Your task to perform on an android device: change the clock display to show seconds Image 0: 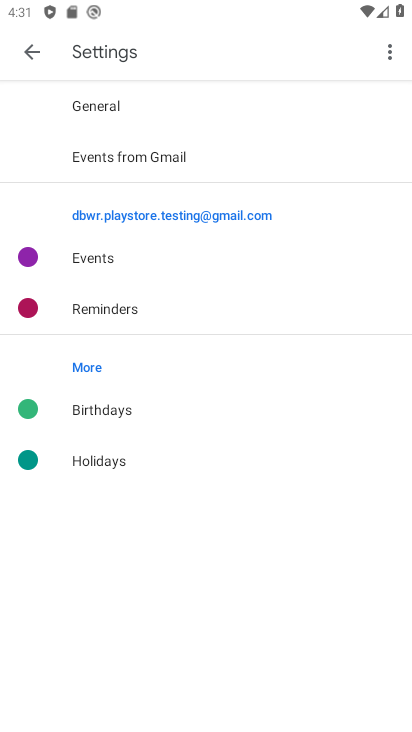
Step 0: press home button
Your task to perform on an android device: change the clock display to show seconds Image 1: 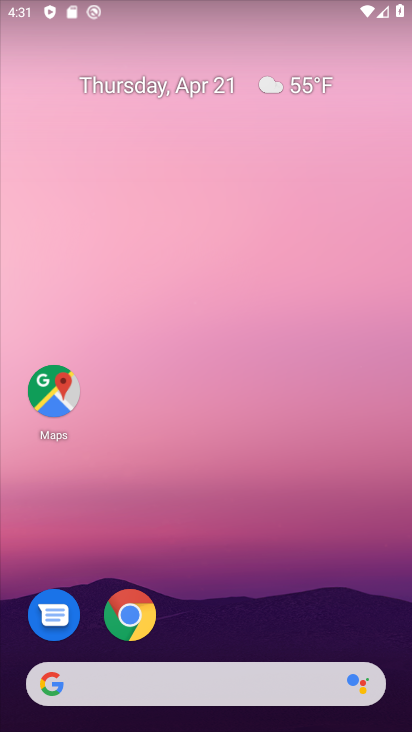
Step 1: drag from (211, 631) to (220, 208)
Your task to perform on an android device: change the clock display to show seconds Image 2: 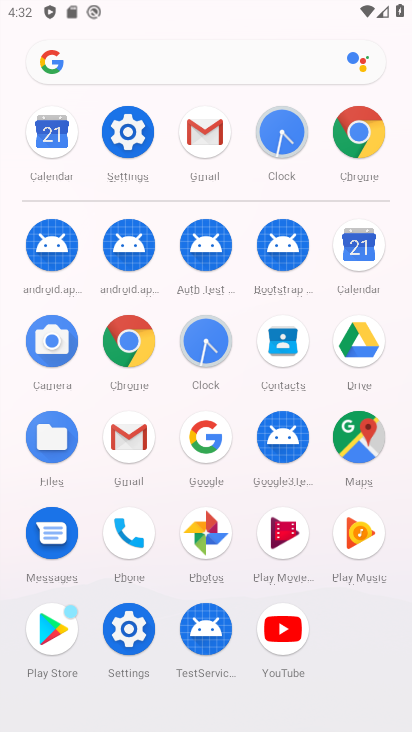
Step 2: click (277, 139)
Your task to perform on an android device: change the clock display to show seconds Image 3: 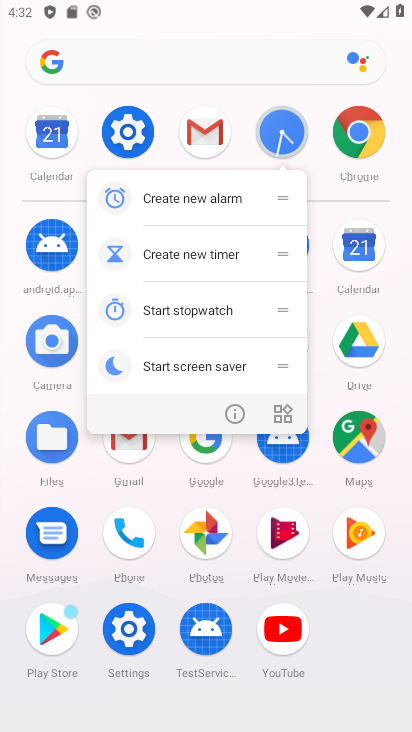
Step 3: click (277, 139)
Your task to perform on an android device: change the clock display to show seconds Image 4: 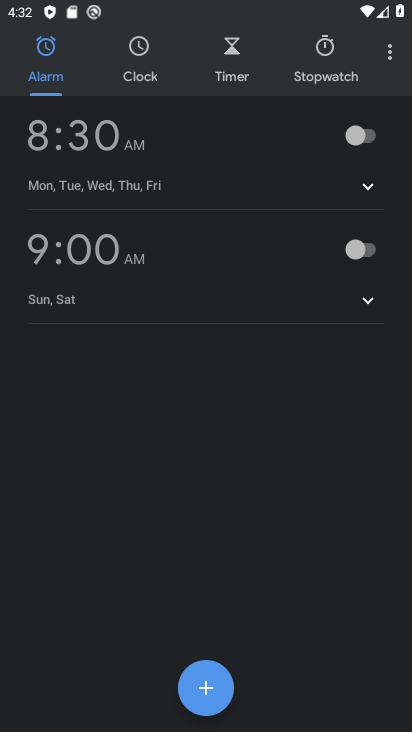
Step 4: click (390, 51)
Your task to perform on an android device: change the clock display to show seconds Image 5: 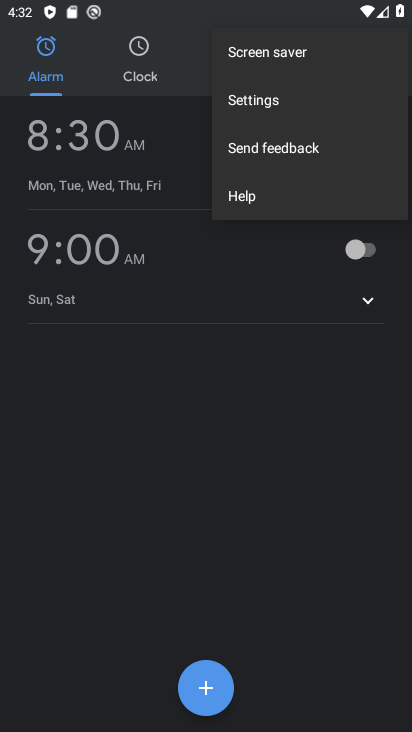
Step 5: click (283, 99)
Your task to perform on an android device: change the clock display to show seconds Image 6: 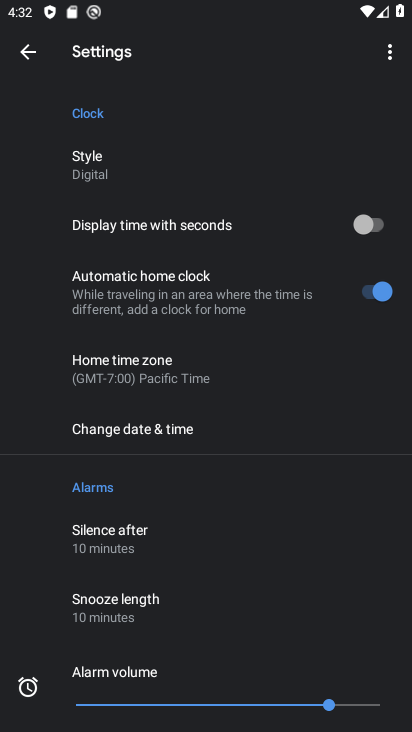
Step 6: task complete